Your task to perform on an android device: Open my contact list Image 0: 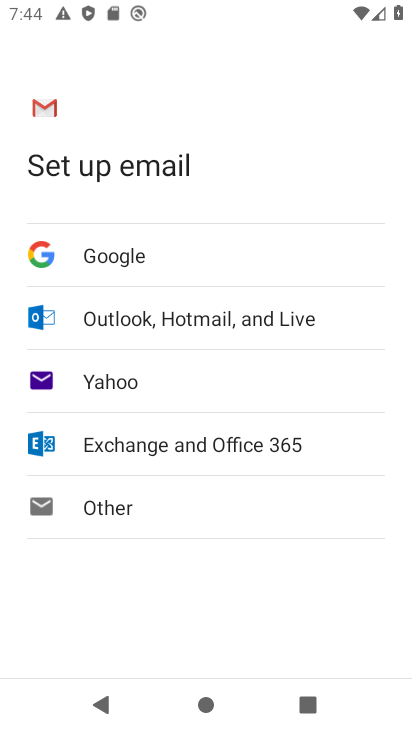
Step 0: press home button
Your task to perform on an android device: Open my contact list Image 1: 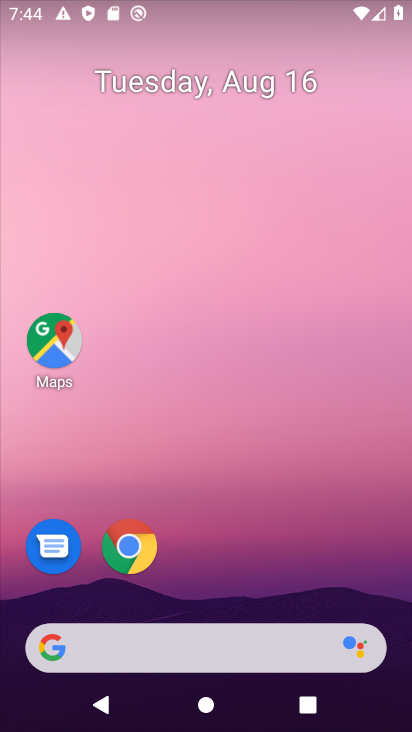
Step 1: drag from (256, 538) to (260, 17)
Your task to perform on an android device: Open my contact list Image 2: 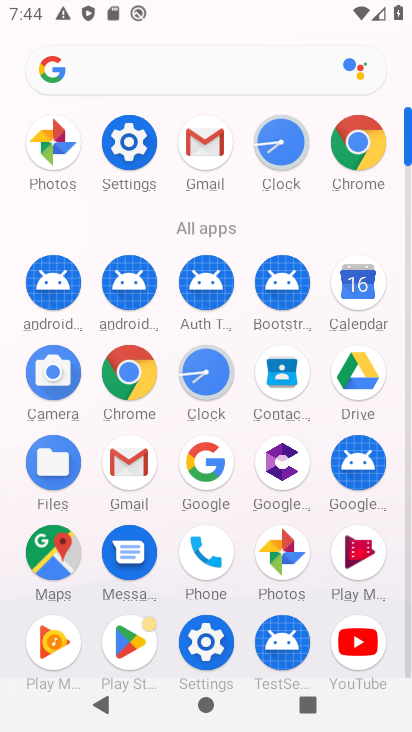
Step 2: click (277, 372)
Your task to perform on an android device: Open my contact list Image 3: 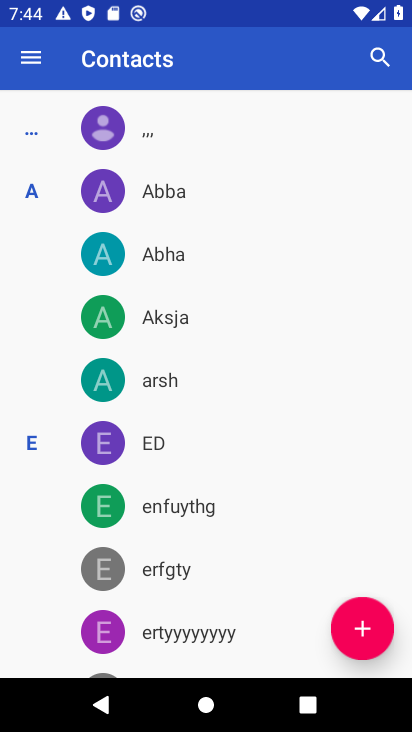
Step 3: task complete